Your task to perform on an android device: What is the recent news? Image 0: 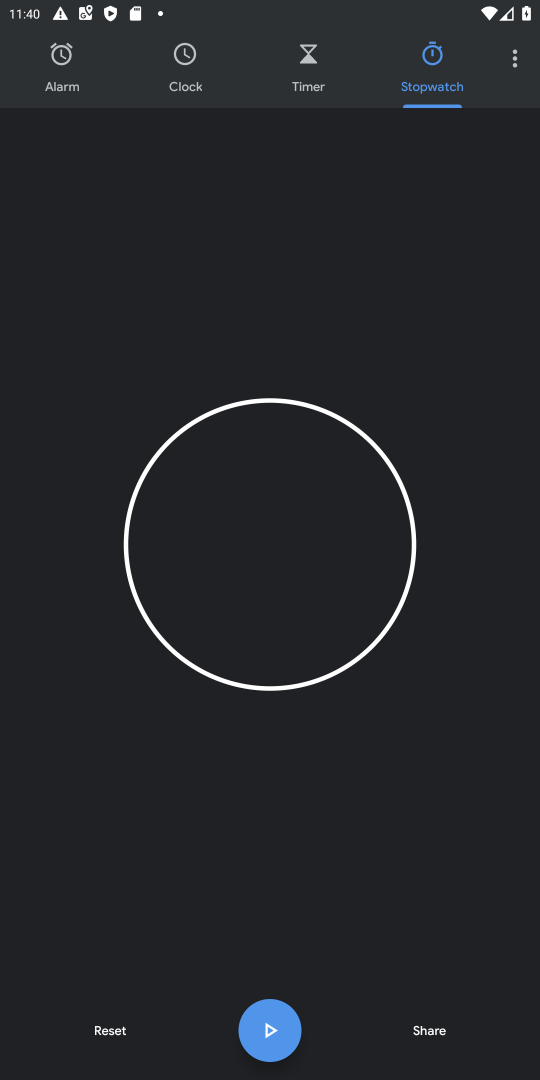
Step 0: press home button
Your task to perform on an android device: What is the recent news? Image 1: 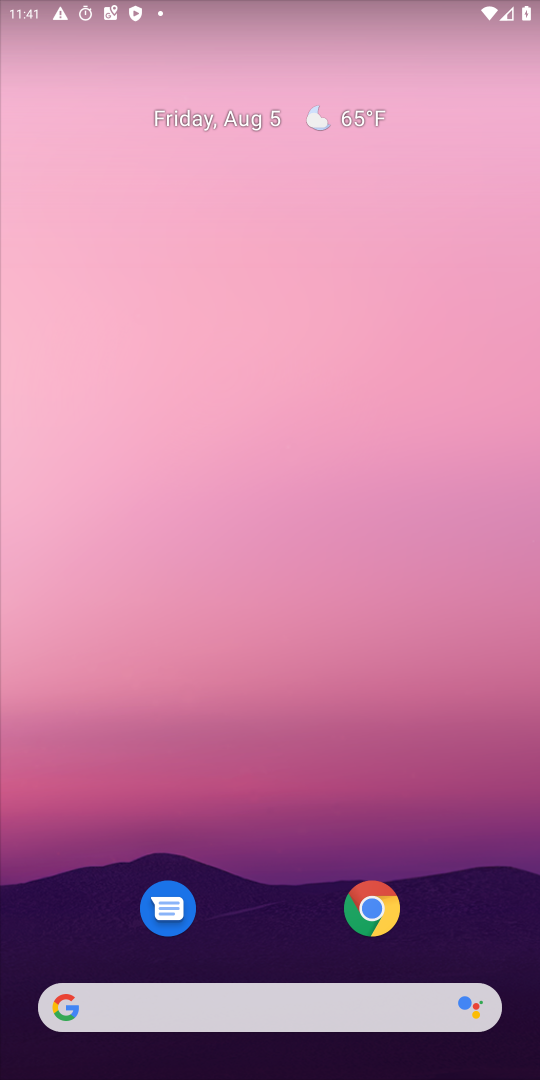
Step 1: click (115, 984)
Your task to perform on an android device: What is the recent news? Image 2: 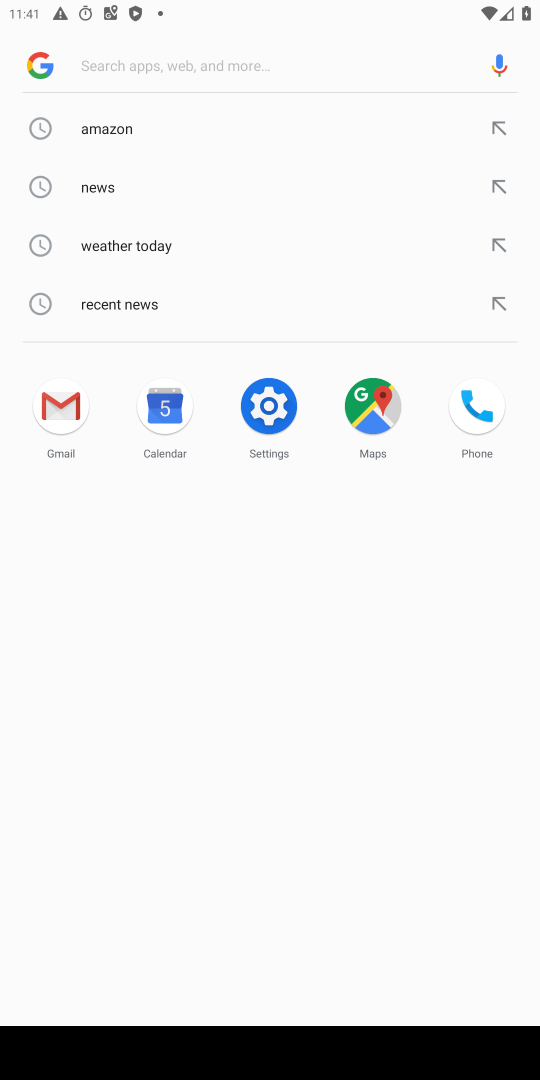
Step 2: type "What is the recent news?"
Your task to perform on an android device: What is the recent news? Image 3: 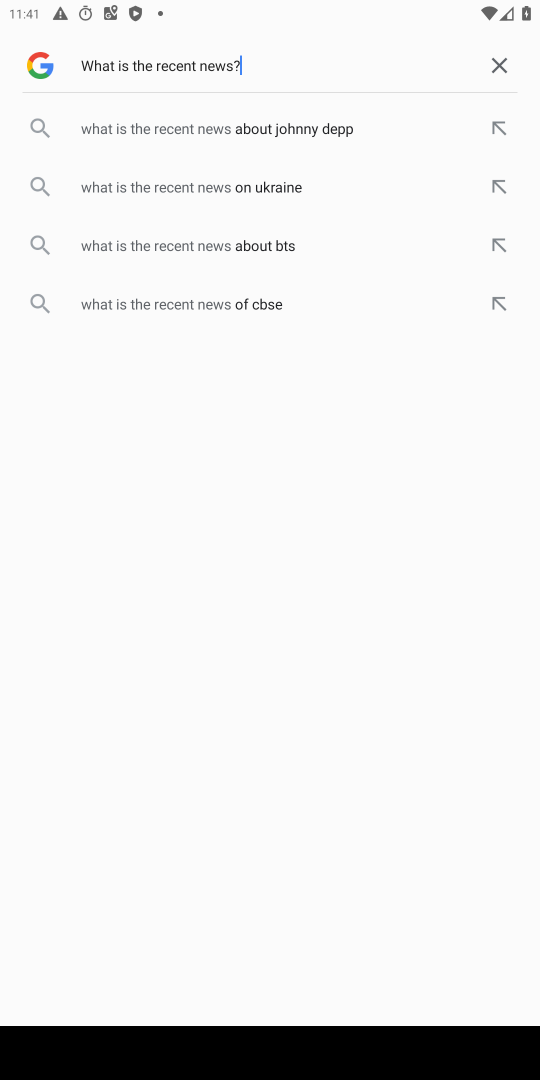
Step 3: type ""
Your task to perform on an android device: What is the recent news? Image 4: 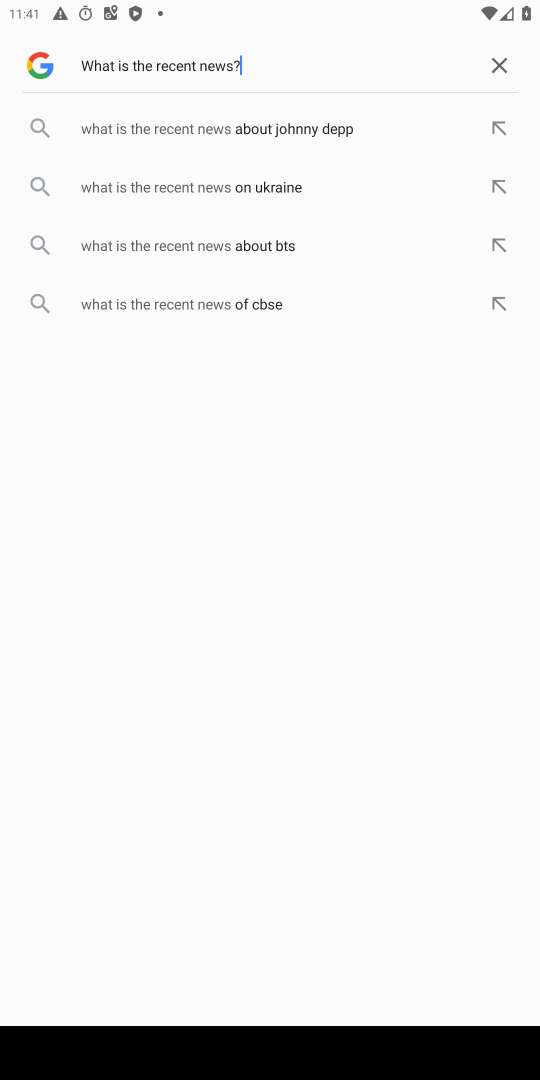
Step 4: task complete